Your task to perform on an android device: Search for vegetarian restaurants on Maps Image 0: 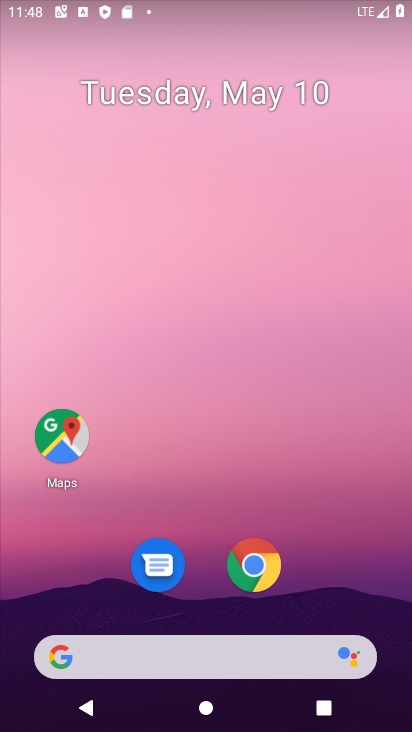
Step 0: press back button
Your task to perform on an android device: Search for vegetarian restaurants on Maps Image 1: 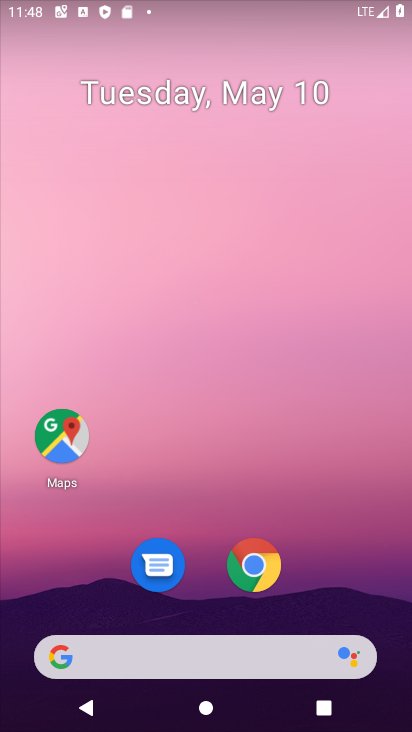
Step 1: click (46, 410)
Your task to perform on an android device: Search for vegetarian restaurants on Maps Image 2: 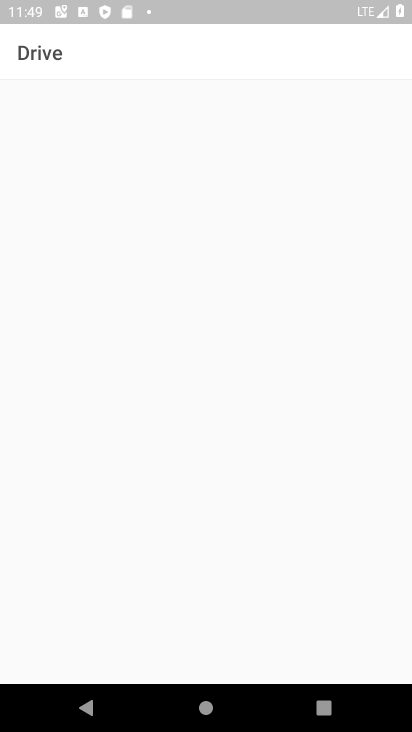
Step 2: press back button
Your task to perform on an android device: Search for vegetarian restaurants on Maps Image 3: 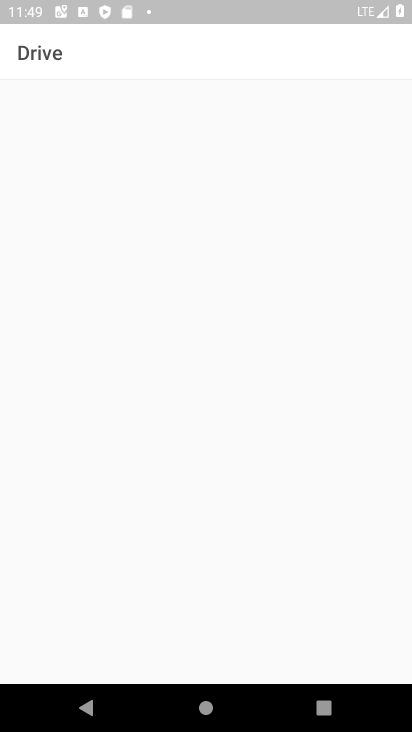
Step 3: press back button
Your task to perform on an android device: Search for vegetarian restaurants on Maps Image 4: 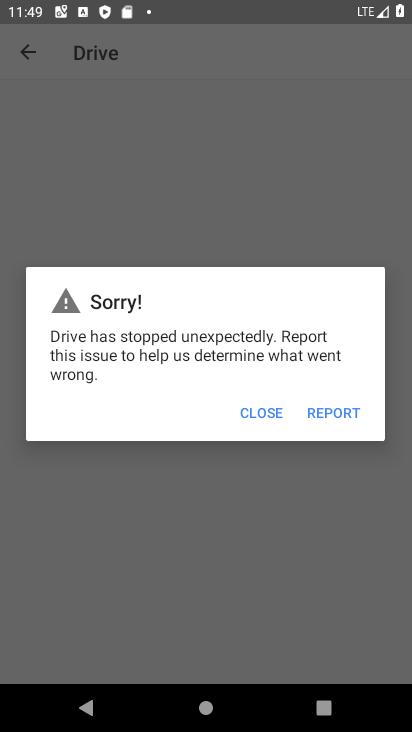
Step 4: press back button
Your task to perform on an android device: Search for vegetarian restaurants on Maps Image 5: 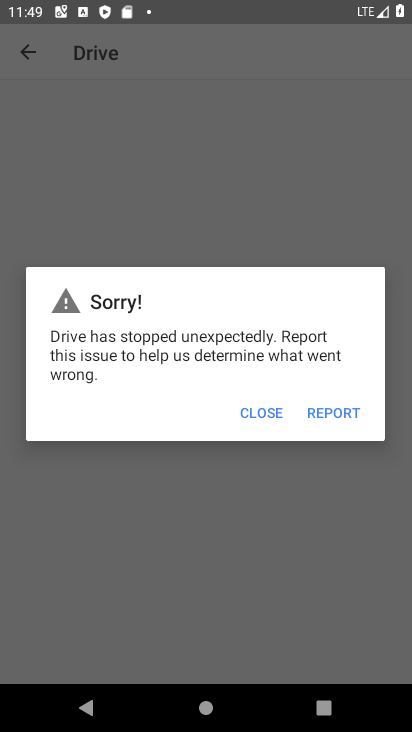
Step 5: click (255, 414)
Your task to perform on an android device: Search for vegetarian restaurants on Maps Image 6: 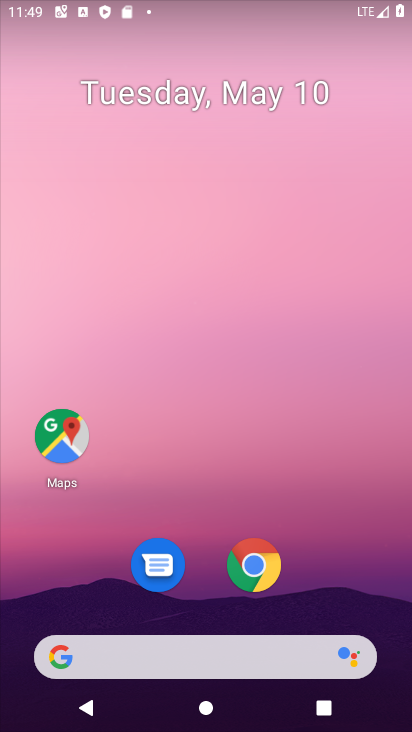
Step 6: click (67, 431)
Your task to perform on an android device: Search for vegetarian restaurants on Maps Image 7: 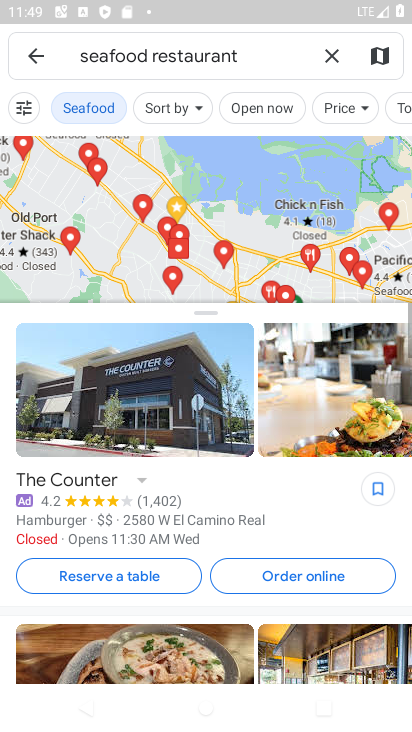
Step 7: click (331, 63)
Your task to perform on an android device: Search for vegetarian restaurants on Maps Image 8: 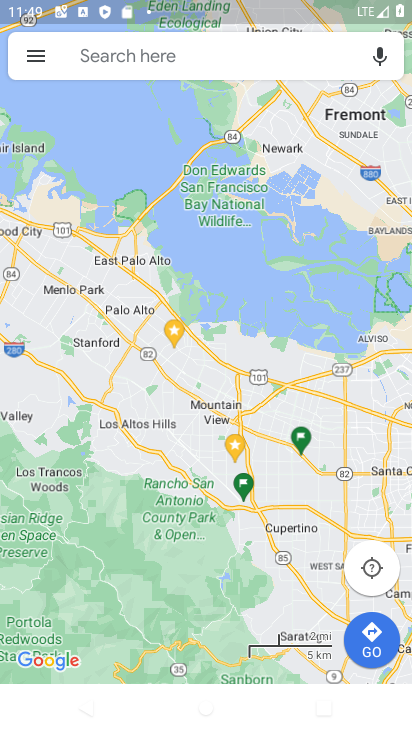
Step 8: click (138, 50)
Your task to perform on an android device: Search for vegetarian restaurants on Maps Image 9: 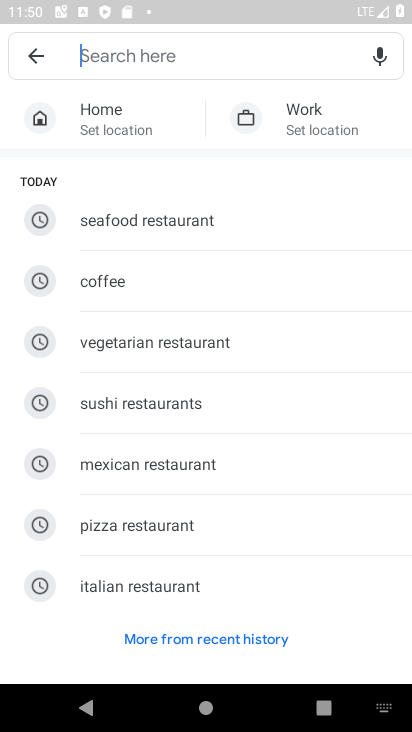
Step 9: click (121, 351)
Your task to perform on an android device: Search for vegetarian restaurants on Maps Image 10: 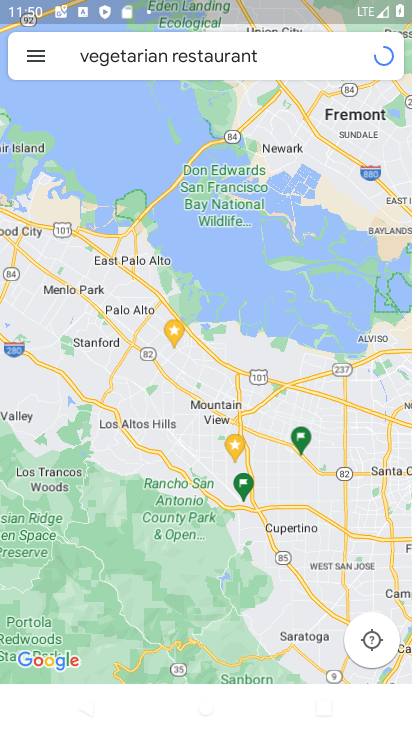
Step 10: task complete